Your task to perform on an android device: Open calendar and show me the fourth week of next month Image 0: 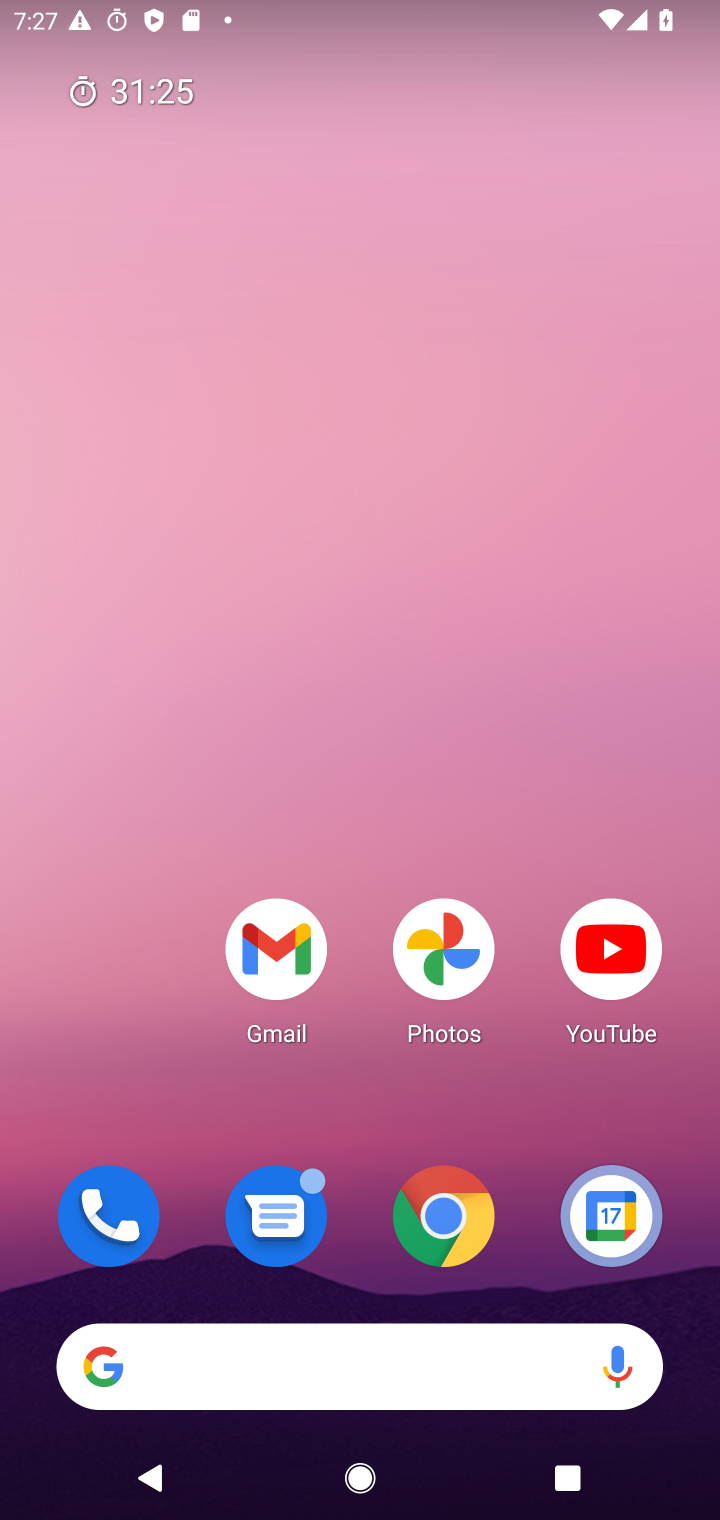
Step 0: drag from (348, 1109) to (379, 21)
Your task to perform on an android device: Open calendar and show me the fourth week of next month Image 1: 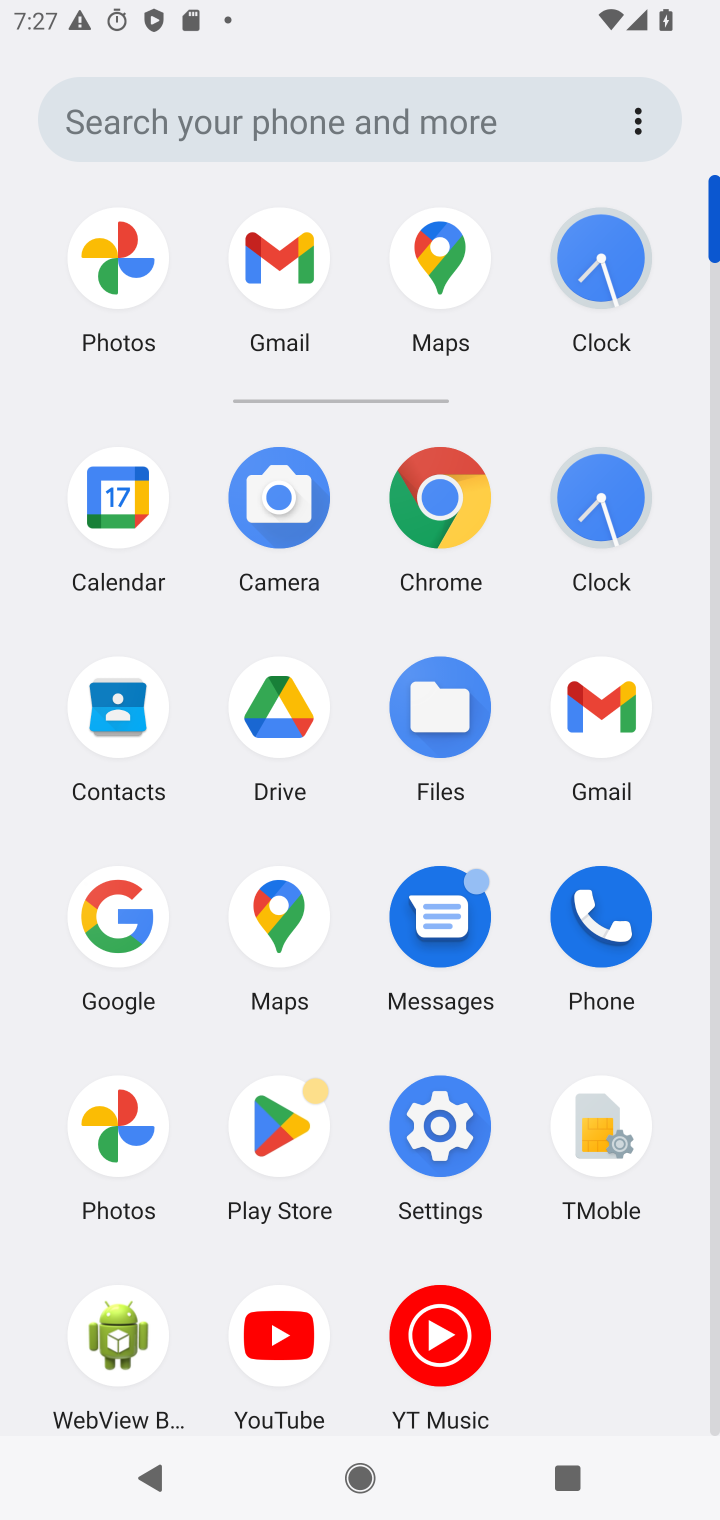
Step 1: click (107, 493)
Your task to perform on an android device: Open calendar and show me the fourth week of next month Image 2: 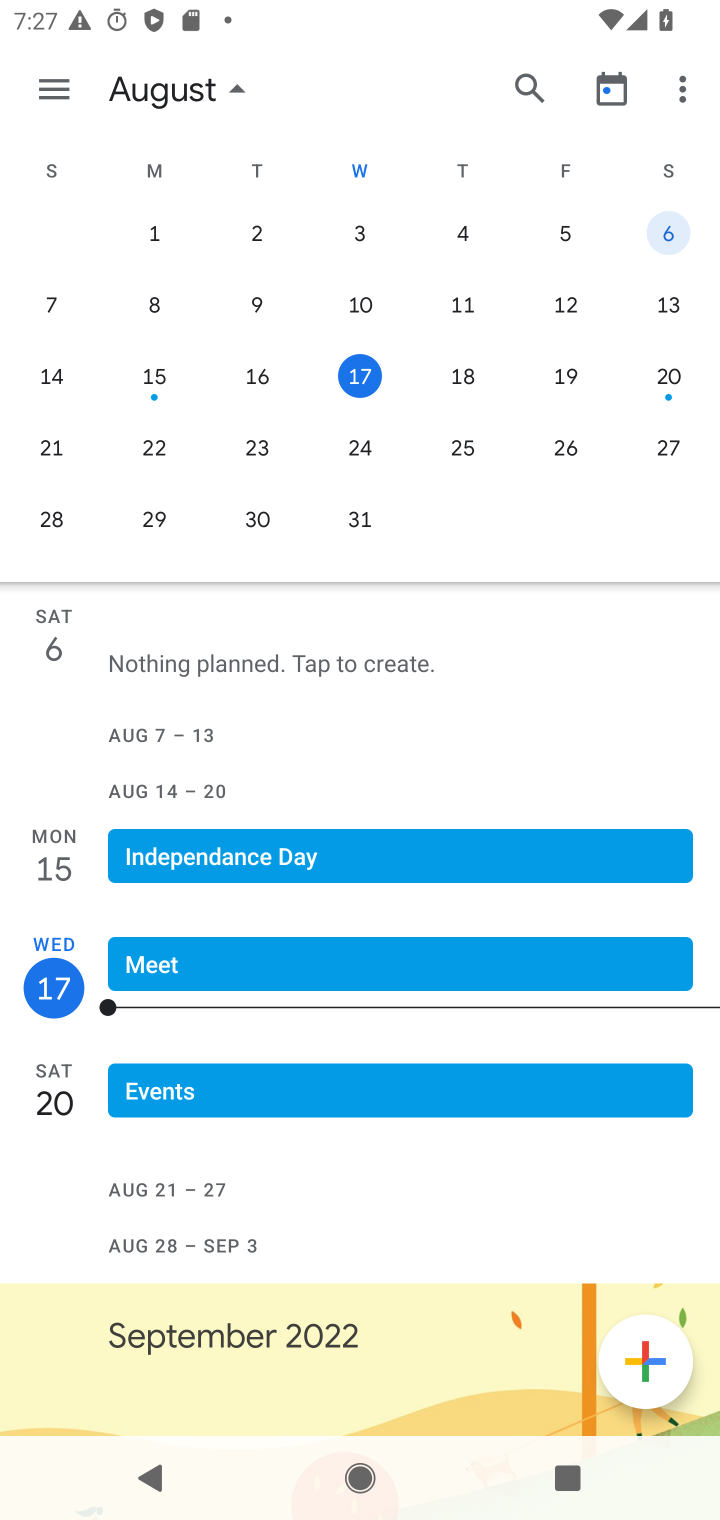
Step 2: drag from (578, 326) to (0, 365)
Your task to perform on an android device: Open calendar and show me the fourth week of next month Image 3: 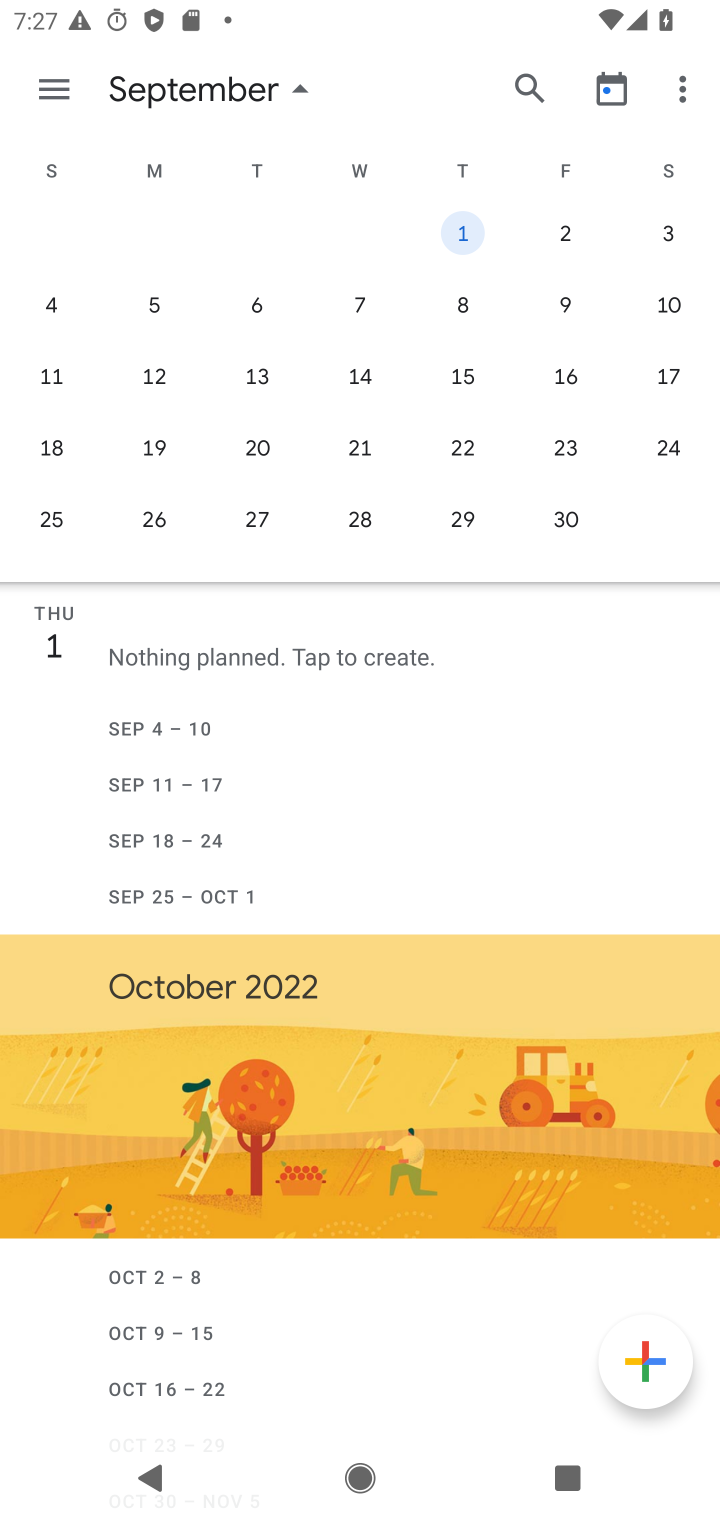
Step 3: click (459, 520)
Your task to perform on an android device: Open calendar and show me the fourth week of next month Image 4: 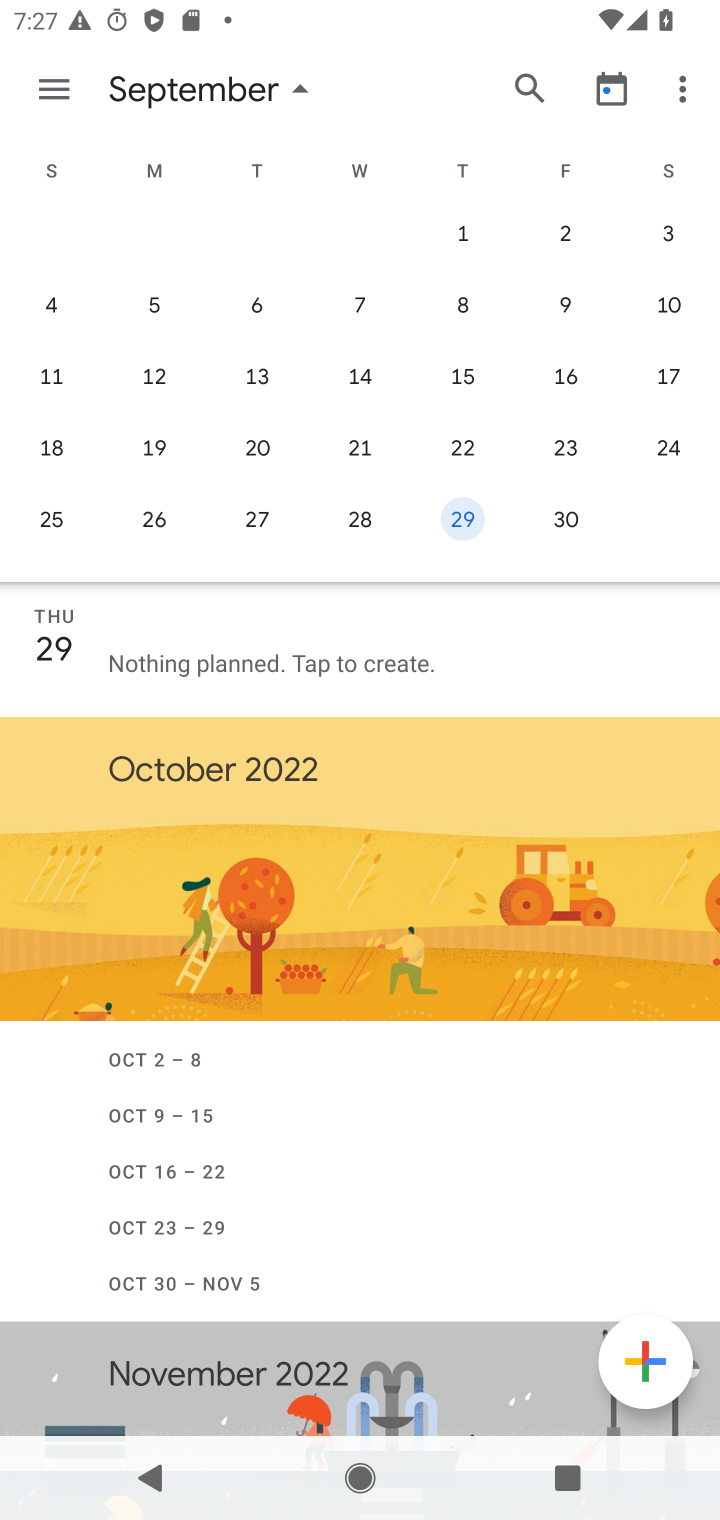
Step 4: task complete